Your task to perform on an android device: Search for Mexican restaurants on Maps Image 0: 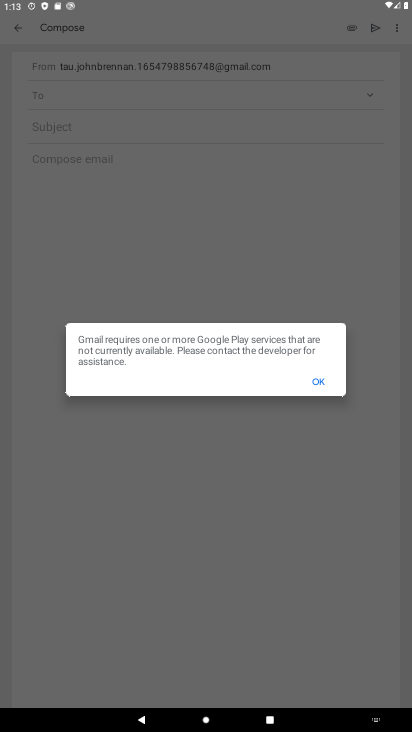
Step 0: press home button
Your task to perform on an android device: Search for Mexican restaurants on Maps Image 1: 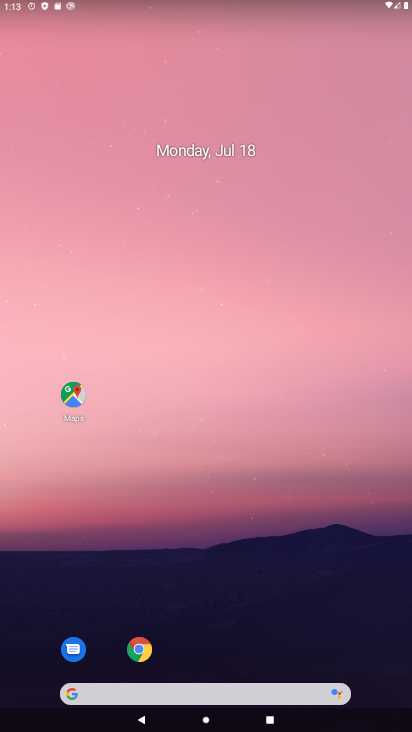
Step 1: click (80, 393)
Your task to perform on an android device: Search for Mexican restaurants on Maps Image 2: 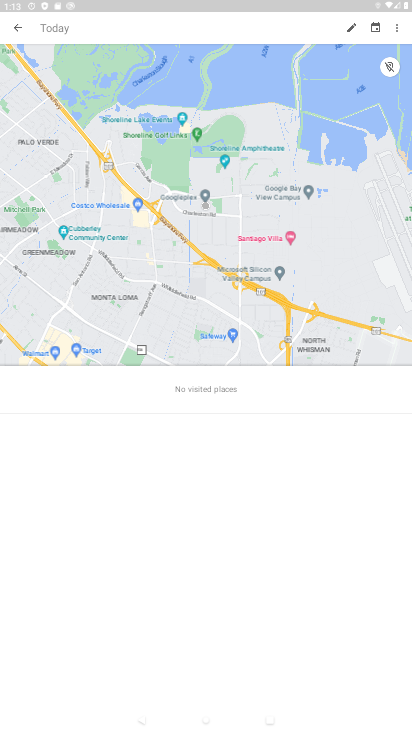
Step 2: click (7, 25)
Your task to perform on an android device: Search for Mexican restaurants on Maps Image 3: 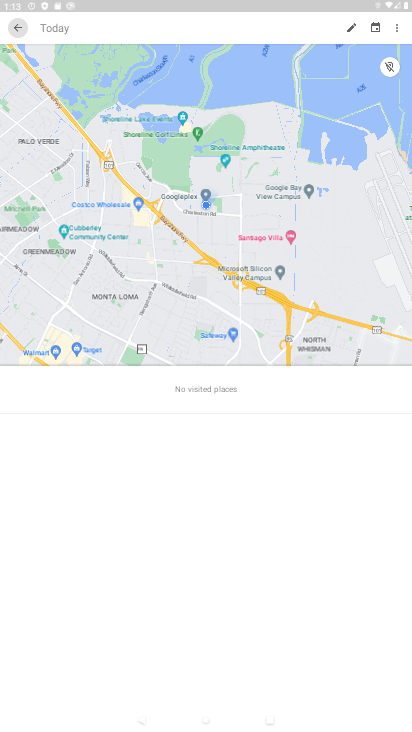
Step 3: click (13, 26)
Your task to perform on an android device: Search for Mexican restaurants on Maps Image 4: 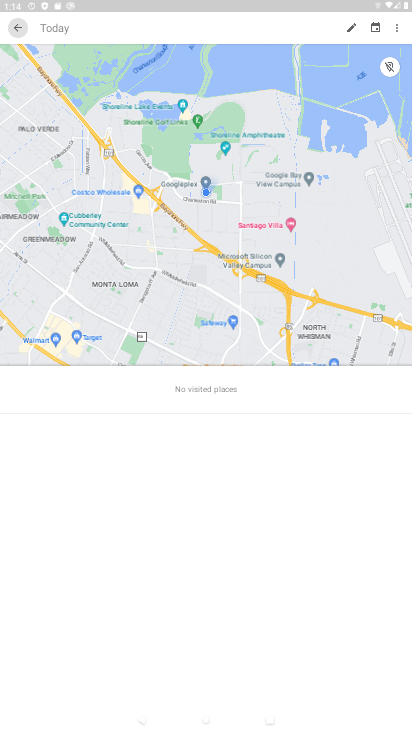
Step 4: click (22, 29)
Your task to perform on an android device: Search for Mexican restaurants on Maps Image 5: 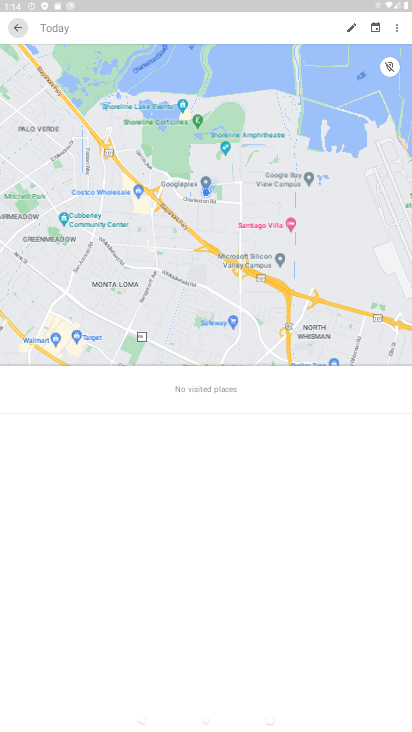
Step 5: press back button
Your task to perform on an android device: Search for Mexican restaurants on Maps Image 6: 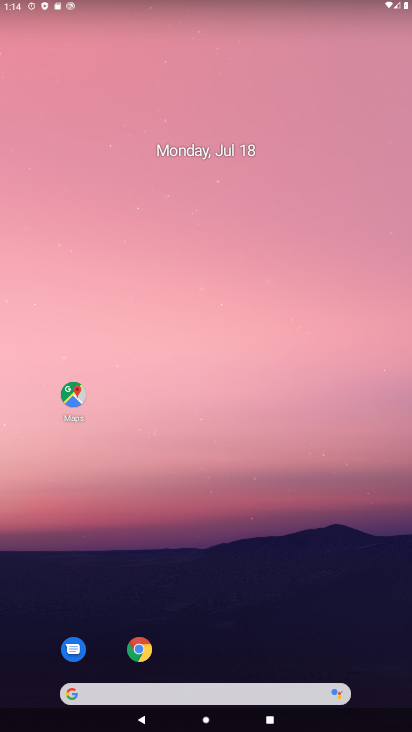
Step 6: click (70, 410)
Your task to perform on an android device: Search for Mexican restaurants on Maps Image 7: 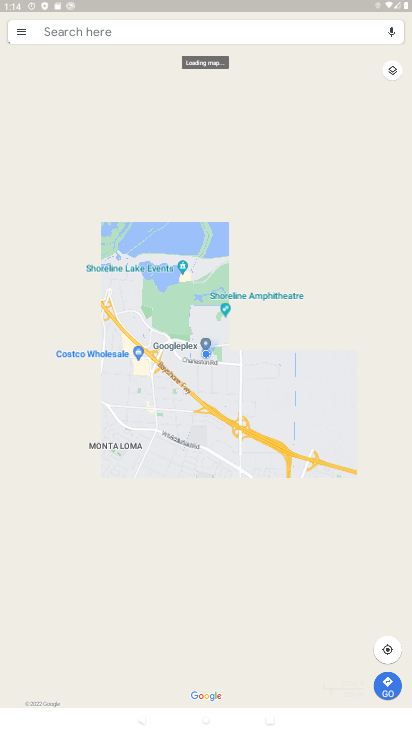
Step 7: click (72, 28)
Your task to perform on an android device: Search for Mexican restaurants on Maps Image 8: 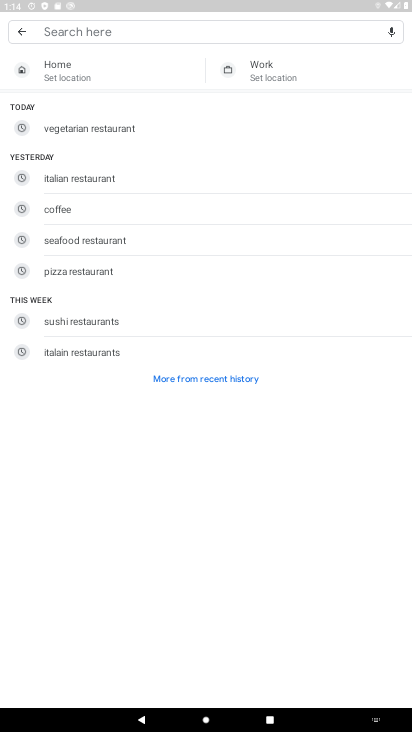
Step 8: type "Mexican restaurants"
Your task to perform on an android device: Search for Mexican restaurants on Maps Image 9: 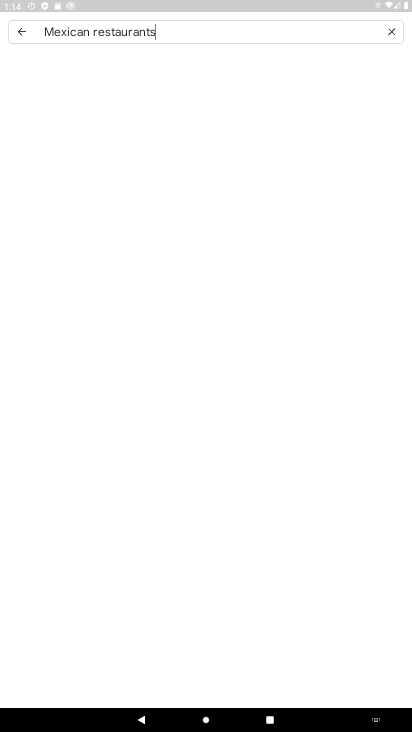
Step 9: type ""
Your task to perform on an android device: Search for Mexican restaurants on Maps Image 10: 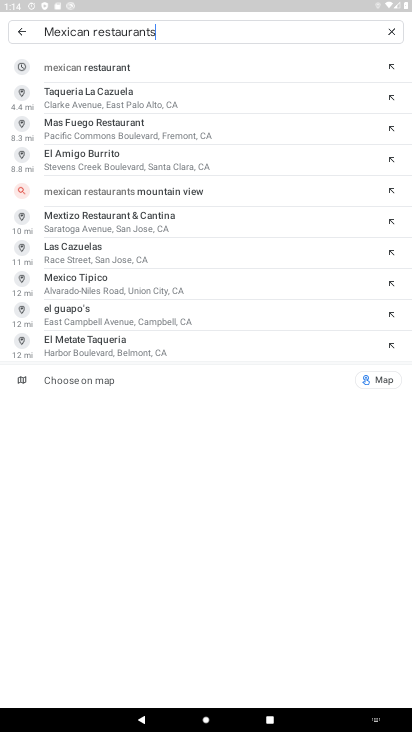
Step 10: click (68, 62)
Your task to perform on an android device: Search for Mexican restaurants on Maps Image 11: 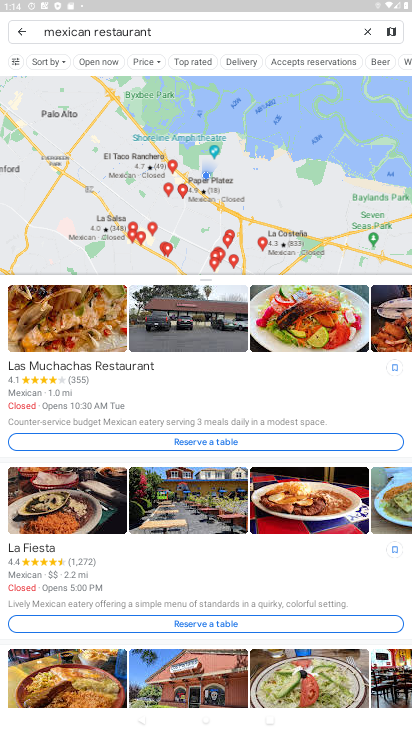
Step 11: task complete